Your task to perform on an android device: toggle improve location accuracy Image 0: 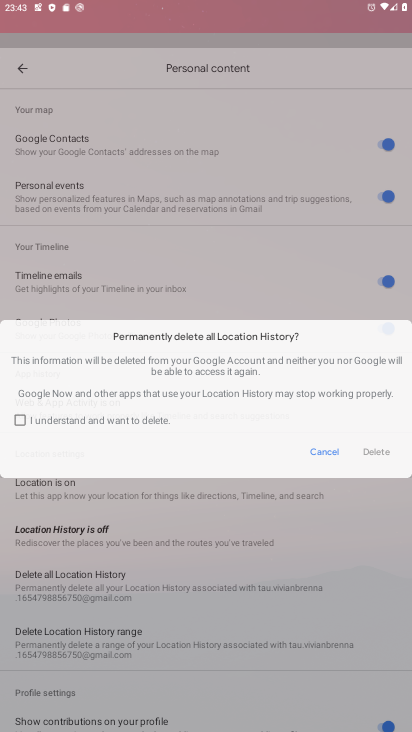
Step 0: click (330, 379)
Your task to perform on an android device: toggle improve location accuracy Image 1: 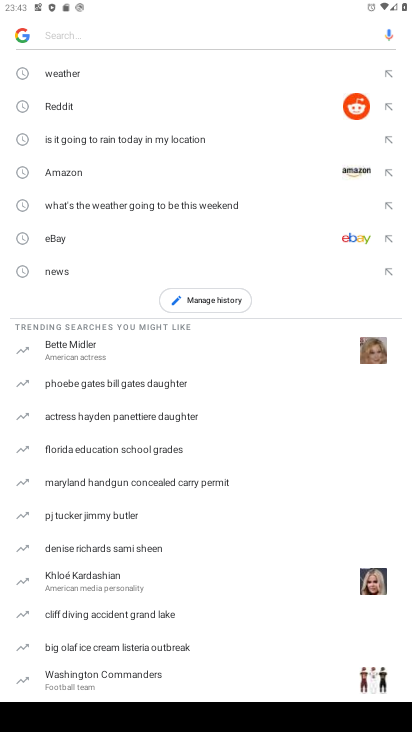
Step 1: drag from (250, 9) to (211, 640)
Your task to perform on an android device: toggle improve location accuracy Image 2: 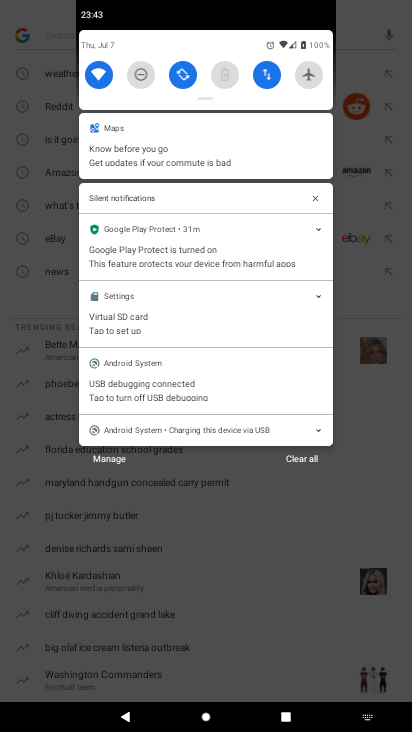
Step 2: drag from (201, 49) to (220, 507)
Your task to perform on an android device: toggle improve location accuracy Image 3: 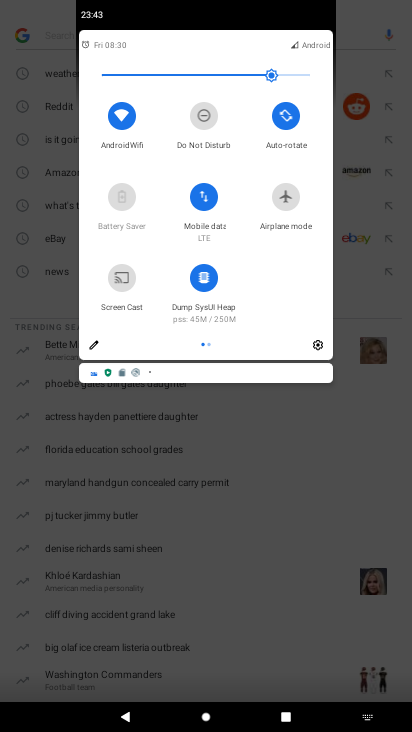
Step 3: click (323, 346)
Your task to perform on an android device: toggle improve location accuracy Image 4: 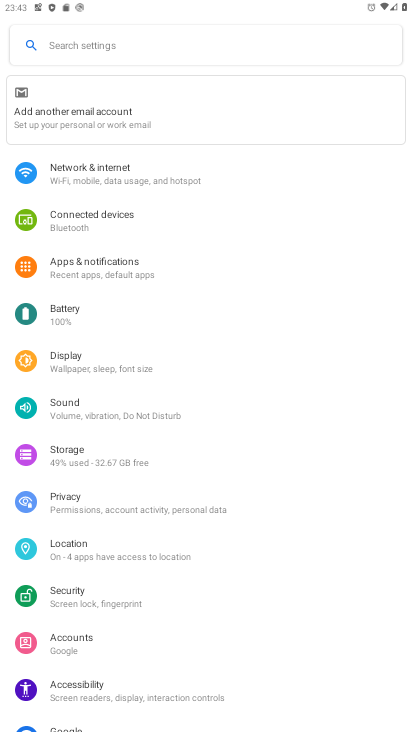
Step 4: click (153, 558)
Your task to perform on an android device: toggle improve location accuracy Image 5: 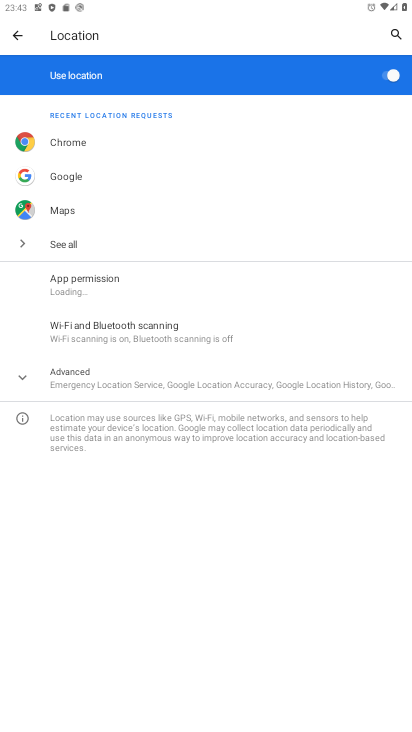
Step 5: click (158, 379)
Your task to perform on an android device: toggle improve location accuracy Image 6: 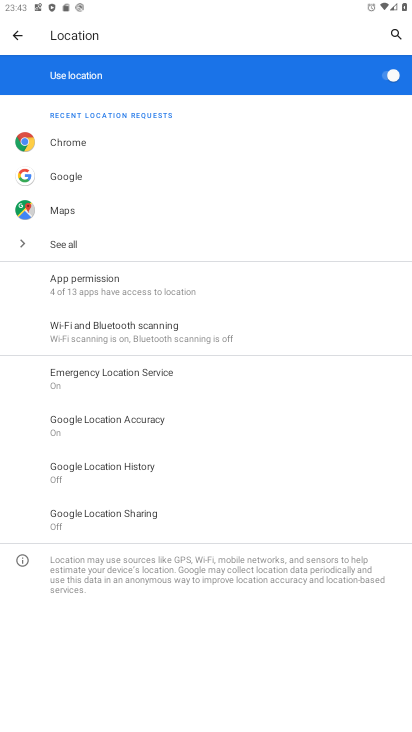
Step 6: click (167, 416)
Your task to perform on an android device: toggle improve location accuracy Image 7: 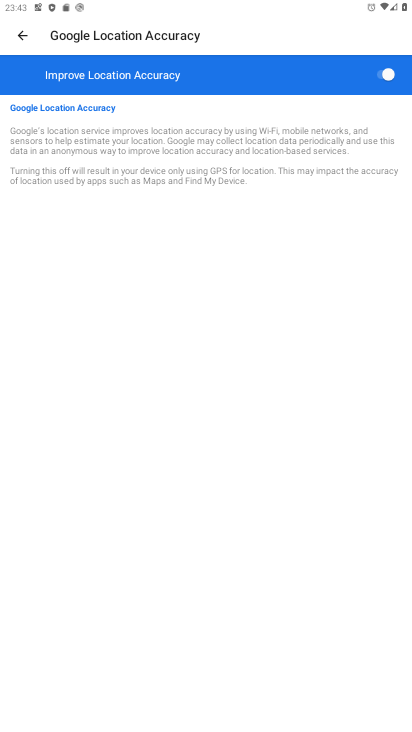
Step 7: click (393, 77)
Your task to perform on an android device: toggle improve location accuracy Image 8: 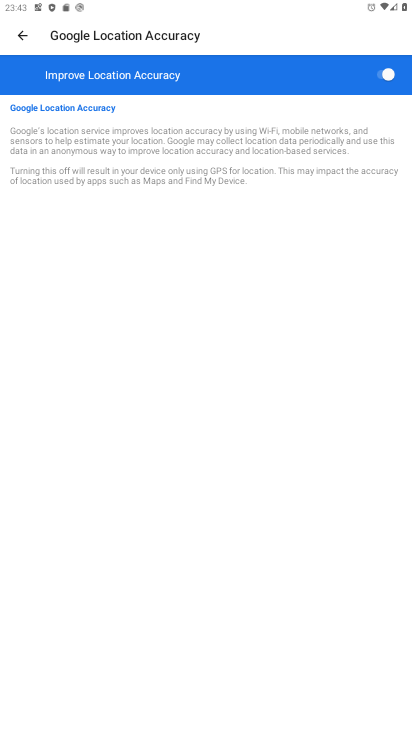
Step 8: click (393, 77)
Your task to perform on an android device: toggle improve location accuracy Image 9: 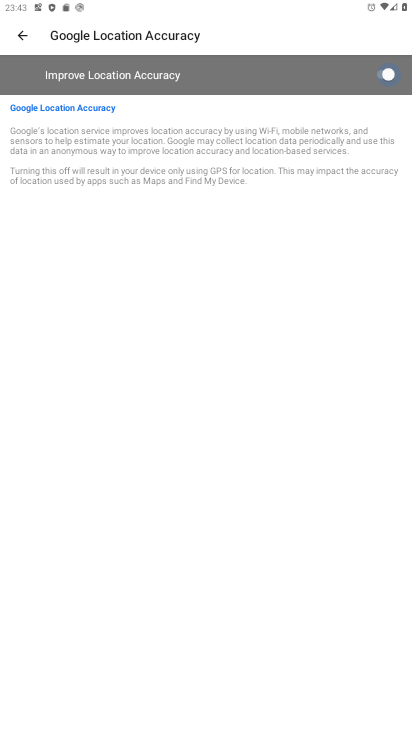
Step 9: click (393, 77)
Your task to perform on an android device: toggle improve location accuracy Image 10: 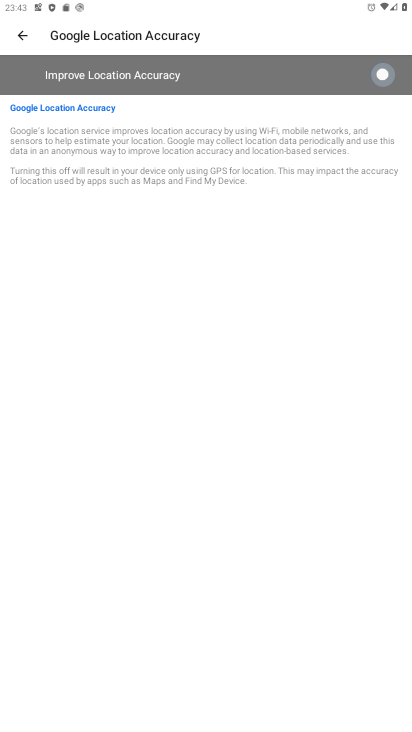
Step 10: click (393, 77)
Your task to perform on an android device: toggle improve location accuracy Image 11: 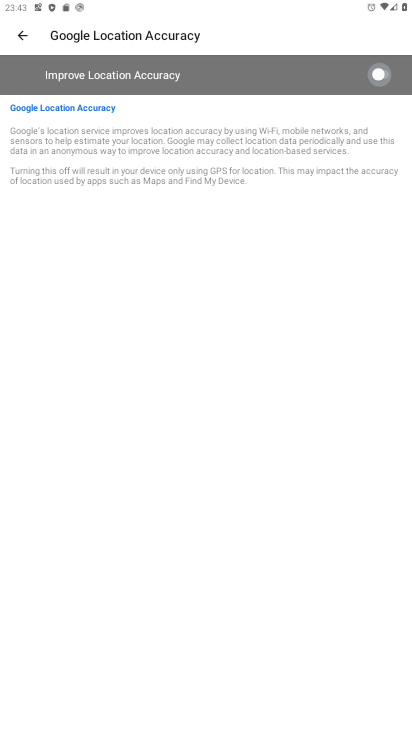
Step 11: click (393, 77)
Your task to perform on an android device: toggle improve location accuracy Image 12: 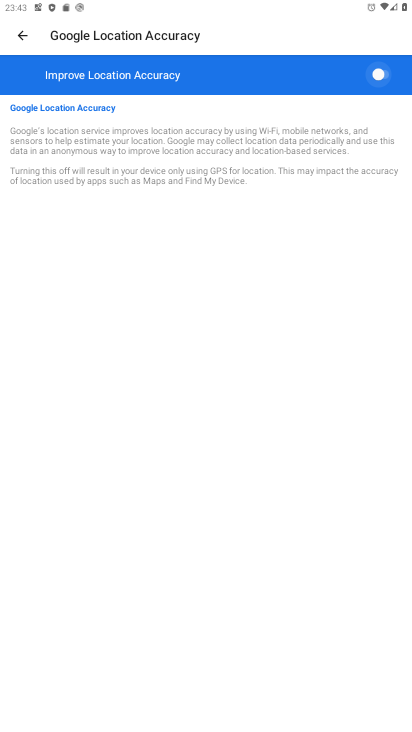
Step 12: click (393, 77)
Your task to perform on an android device: toggle improve location accuracy Image 13: 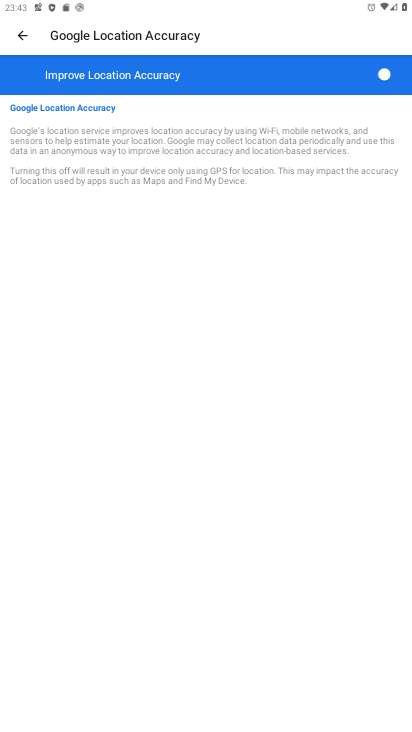
Step 13: click (393, 77)
Your task to perform on an android device: toggle improve location accuracy Image 14: 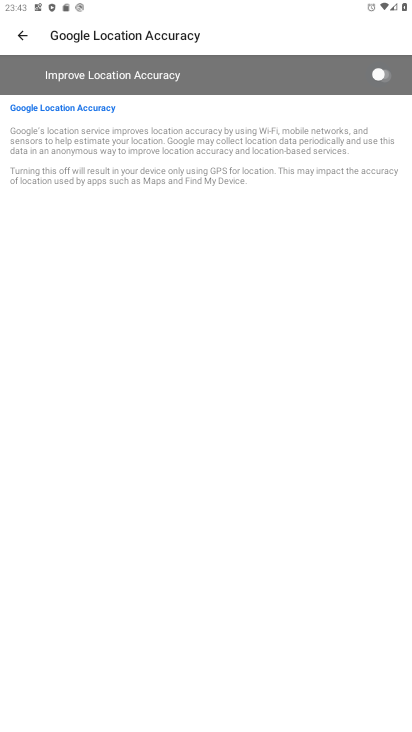
Step 14: click (393, 77)
Your task to perform on an android device: toggle improve location accuracy Image 15: 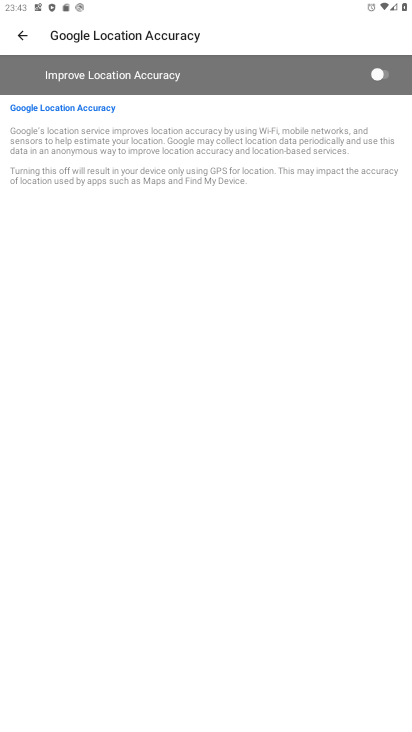
Step 15: task complete